Your task to perform on an android device: Open settings Image 0: 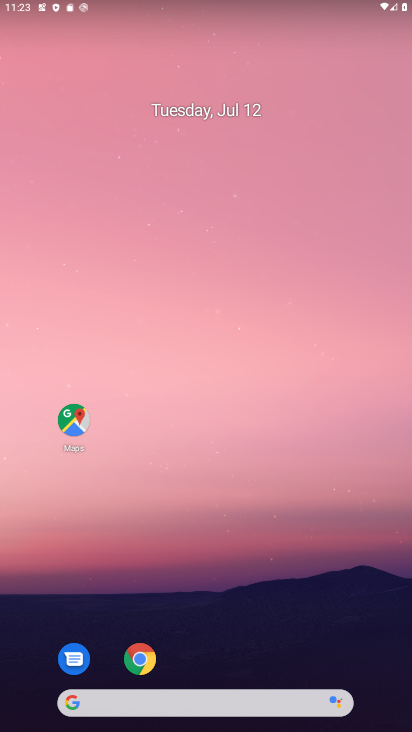
Step 0: drag from (335, 691) to (304, 161)
Your task to perform on an android device: Open settings Image 1: 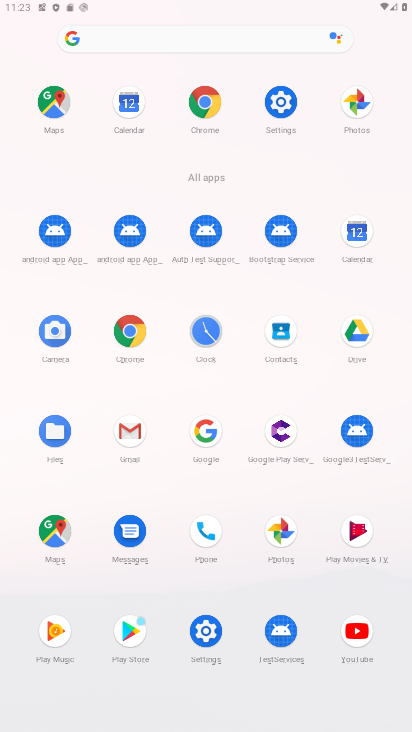
Step 1: drag from (202, 701) to (208, 194)
Your task to perform on an android device: Open settings Image 2: 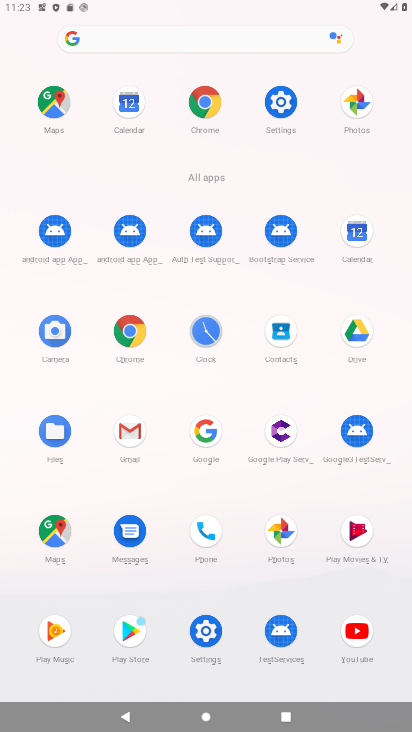
Step 2: click (282, 102)
Your task to perform on an android device: Open settings Image 3: 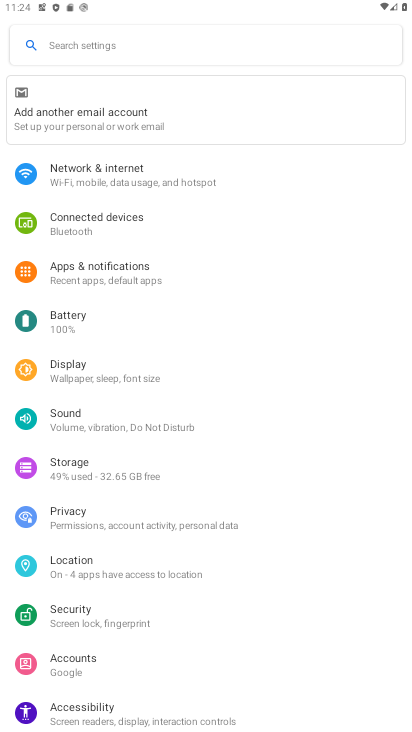
Step 3: task complete